Your task to perform on an android device: Open Chrome and go to settings Image 0: 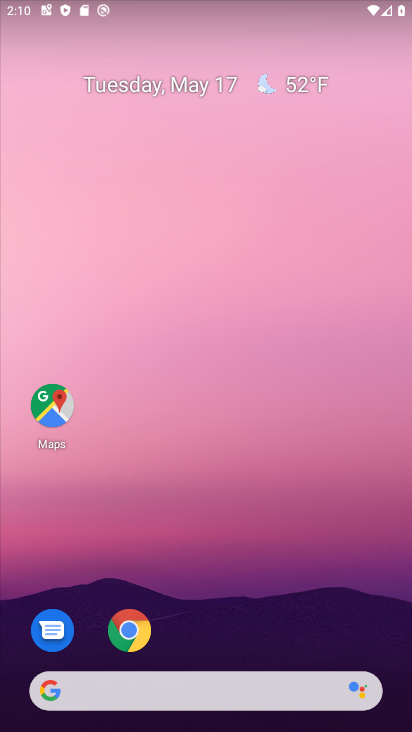
Step 0: click (135, 627)
Your task to perform on an android device: Open Chrome and go to settings Image 1: 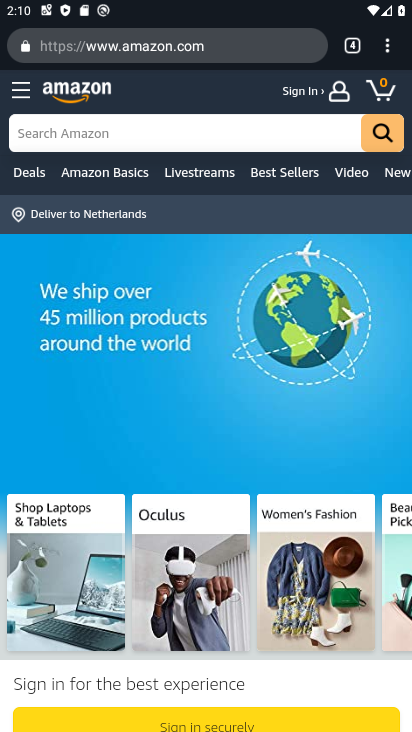
Step 1: task complete